Your task to perform on an android device: Open network settings Image 0: 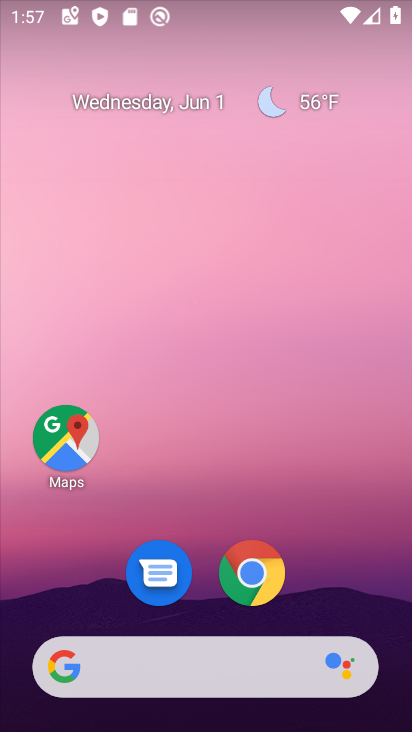
Step 0: drag from (349, 514) to (300, 22)
Your task to perform on an android device: Open network settings Image 1: 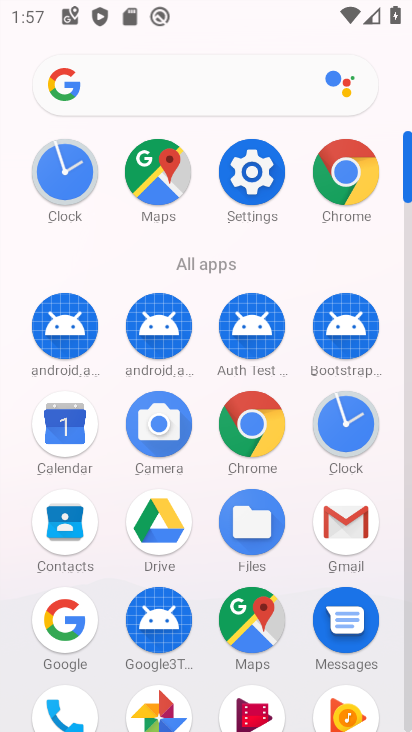
Step 1: click (268, 186)
Your task to perform on an android device: Open network settings Image 2: 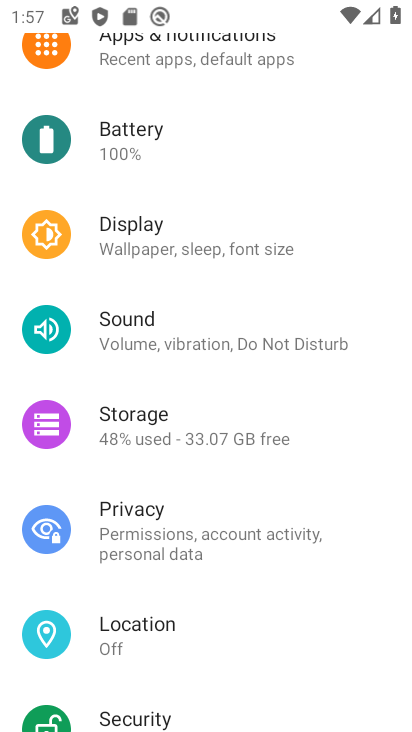
Step 2: drag from (140, 211) to (192, 593)
Your task to perform on an android device: Open network settings Image 3: 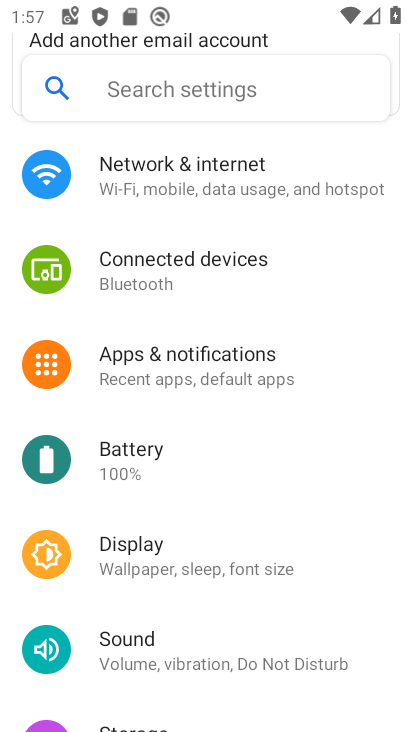
Step 3: drag from (212, 298) to (262, 520)
Your task to perform on an android device: Open network settings Image 4: 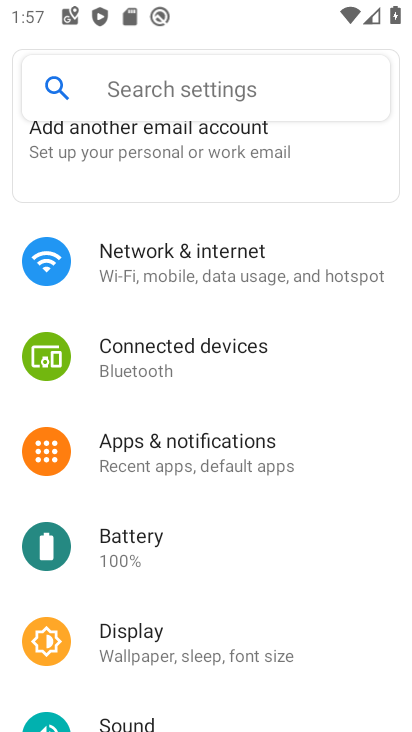
Step 4: click (193, 272)
Your task to perform on an android device: Open network settings Image 5: 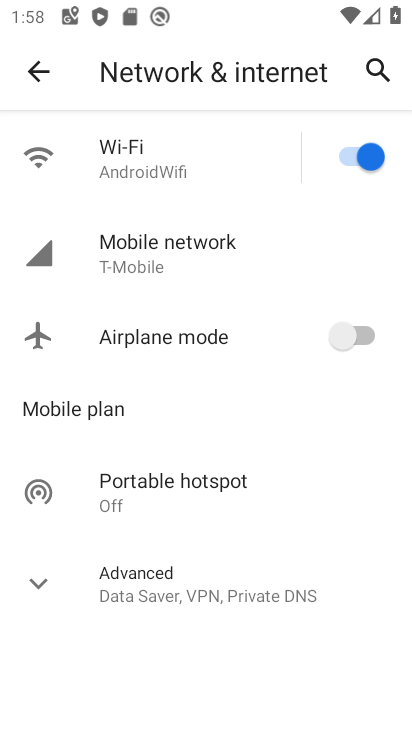
Step 5: task complete